Your task to perform on an android device: turn on airplane mode Image 0: 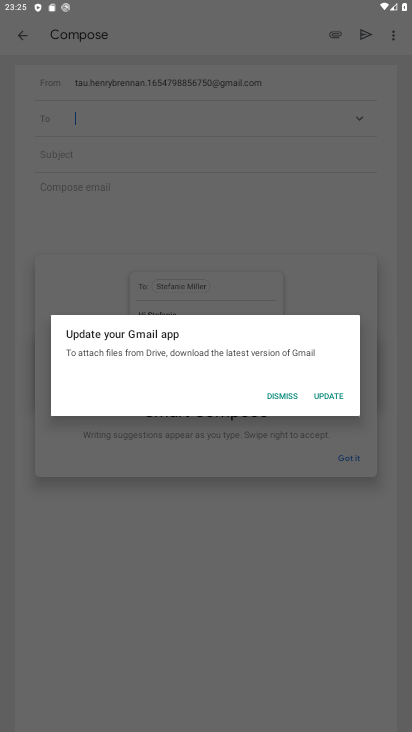
Step 0: press home button
Your task to perform on an android device: turn on airplane mode Image 1: 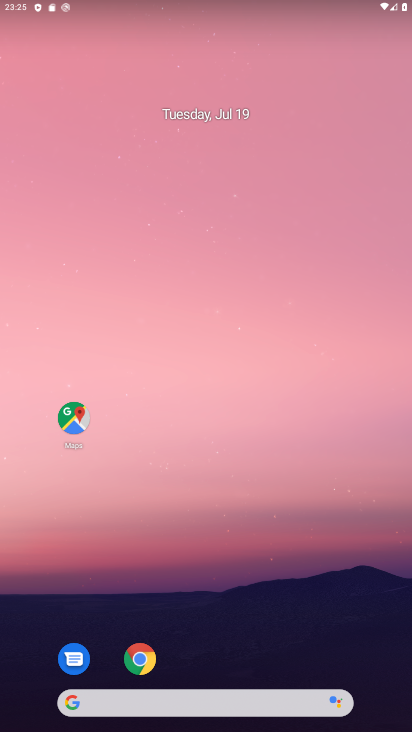
Step 1: drag from (341, 9) to (299, 360)
Your task to perform on an android device: turn on airplane mode Image 2: 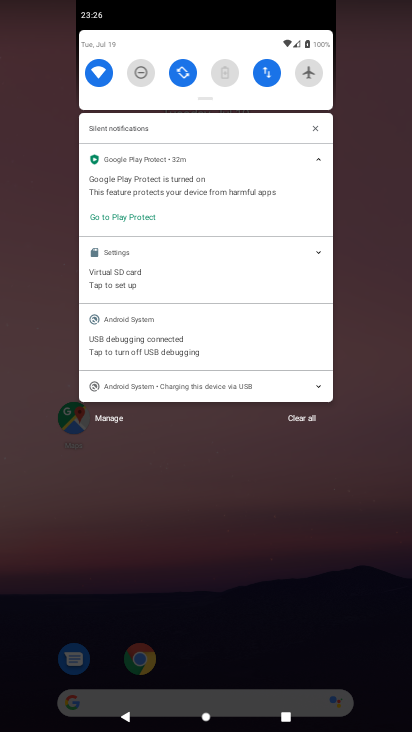
Step 2: click (304, 65)
Your task to perform on an android device: turn on airplane mode Image 3: 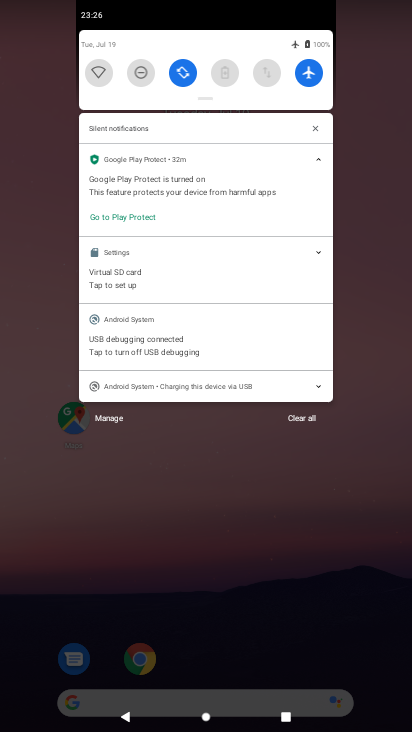
Step 3: task complete